Your task to perform on an android device: toggle show notifications on the lock screen Image 0: 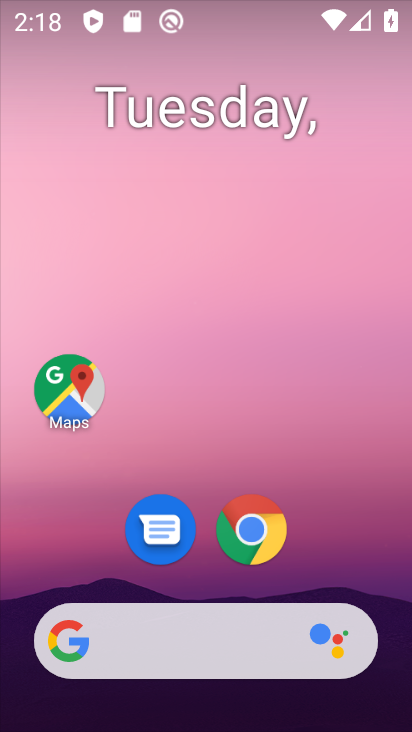
Step 0: click (260, 41)
Your task to perform on an android device: toggle show notifications on the lock screen Image 1: 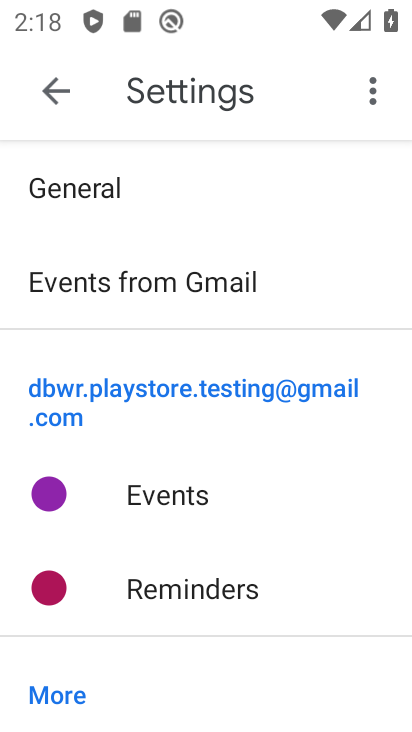
Step 1: press home button
Your task to perform on an android device: toggle show notifications on the lock screen Image 2: 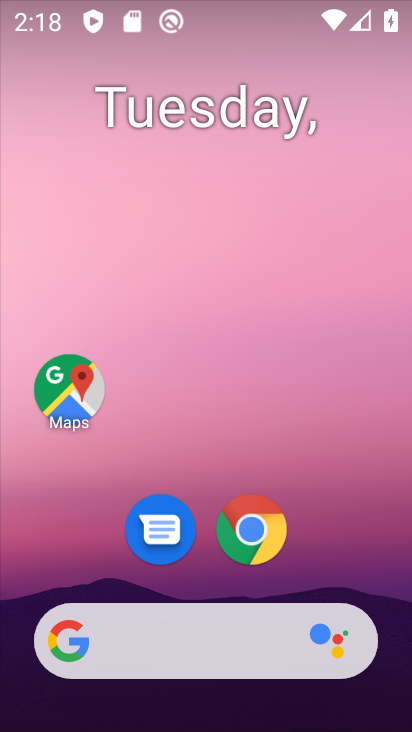
Step 2: drag from (391, 633) to (249, 56)
Your task to perform on an android device: toggle show notifications on the lock screen Image 3: 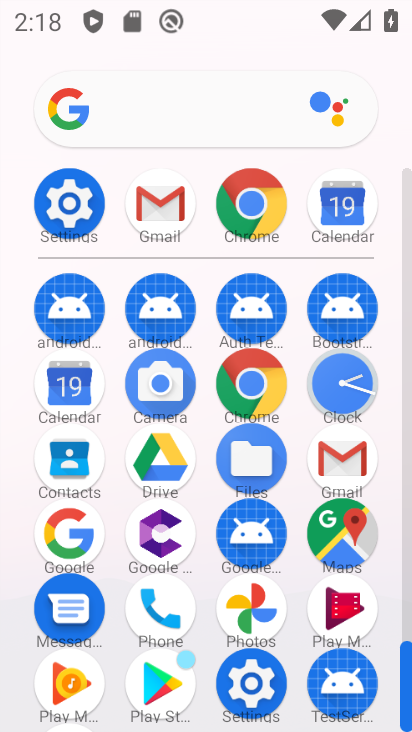
Step 3: click (71, 216)
Your task to perform on an android device: toggle show notifications on the lock screen Image 4: 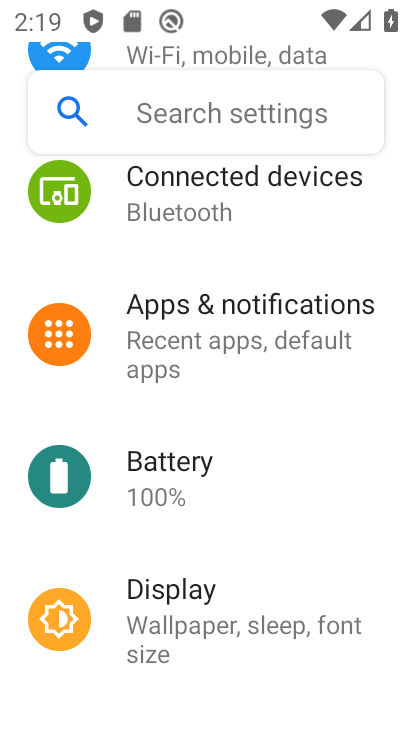
Step 4: click (247, 352)
Your task to perform on an android device: toggle show notifications on the lock screen Image 5: 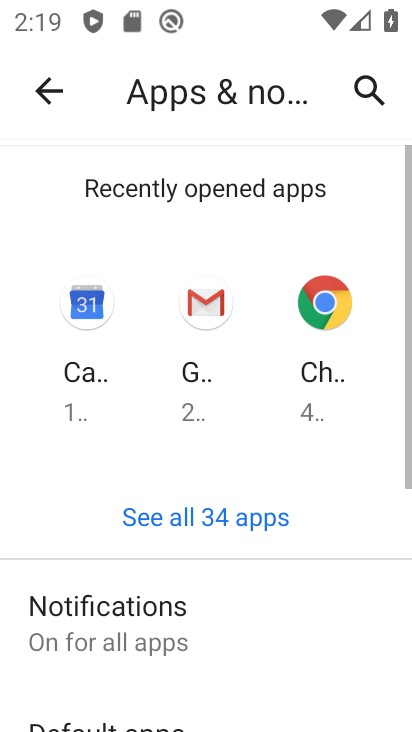
Step 5: click (256, 613)
Your task to perform on an android device: toggle show notifications on the lock screen Image 6: 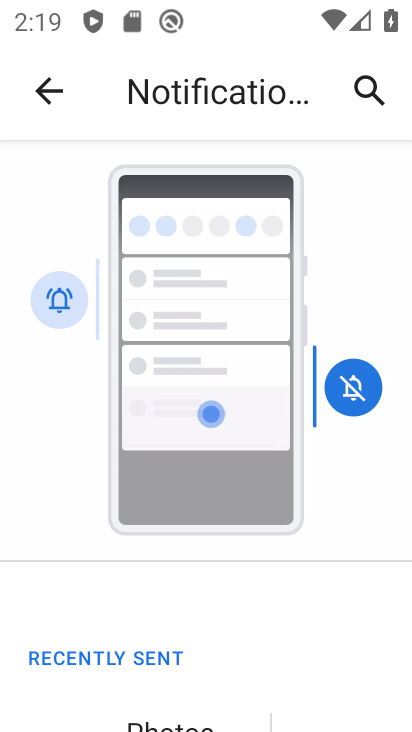
Step 6: drag from (237, 657) to (253, 160)
Your task to perform on an android device: toggle show notifications on the lock screen Image 7: 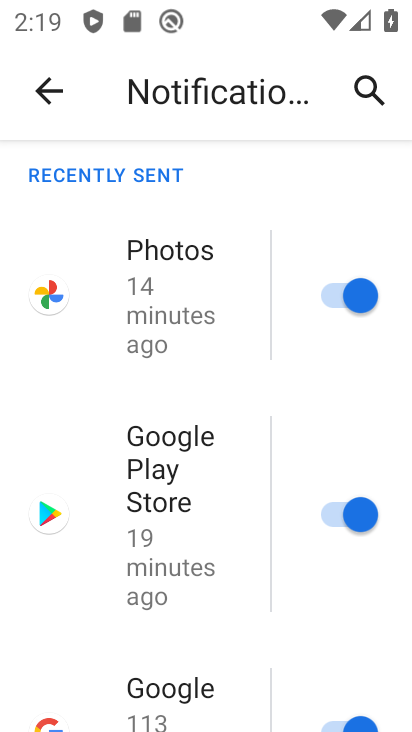
Step 7: drag from (251, 645) to (319, 140)
Your task to perform on an android device: toggle show notifications on the lock screen Image 8: 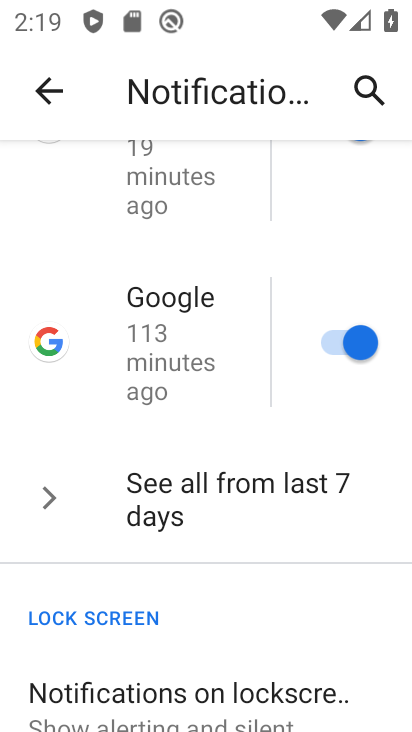
Step 8: click (274, 711)
Your task to perform on an android device: toggle show notifications on the lock screen Image 9: 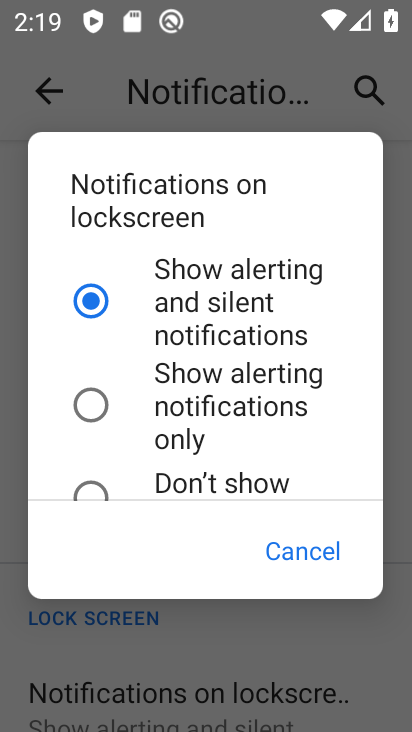
Step 9: click (129, 418)
Your task to perform on an android device: toggle show notifications on the lock screen Image 10: 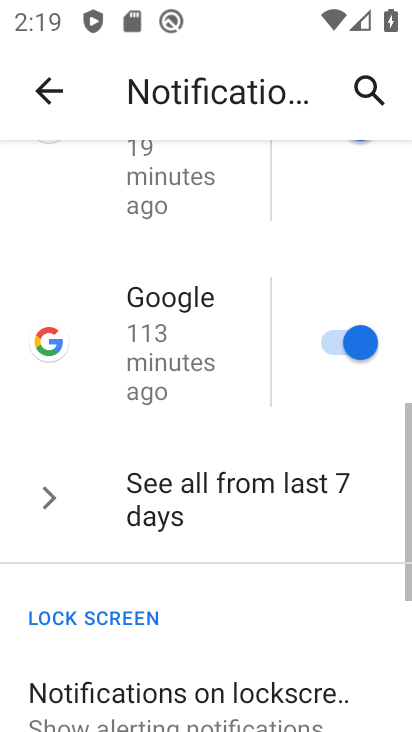
Step 10: task complete